Your task to perform on an android device: change notification settings in the gmail app Image 0: 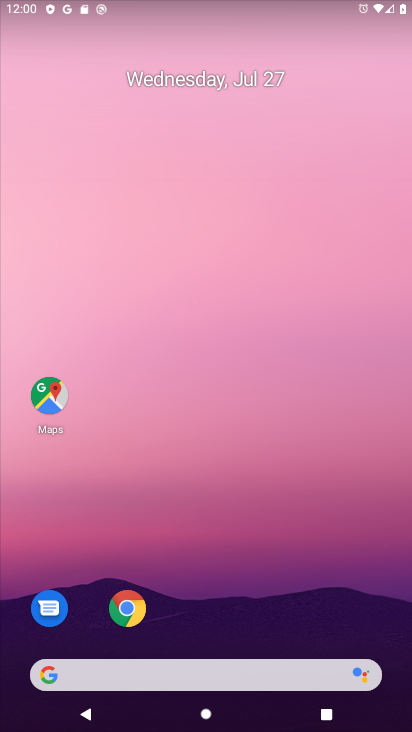
Step 0: drag from (164, 677) to (230, 102)
Your task to perform on an android device: change notification settings in the gmail app Image 1: 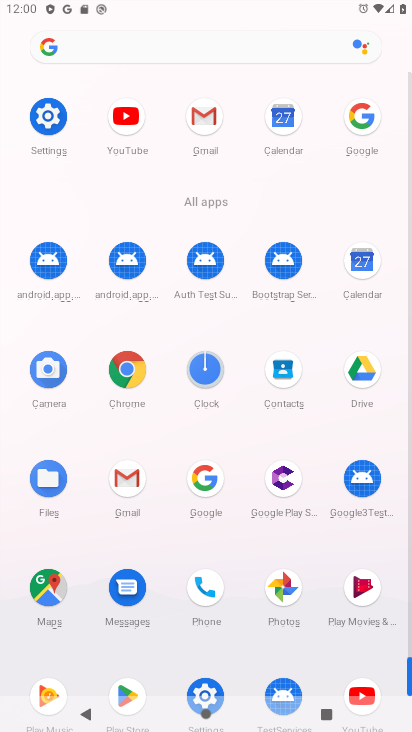
Step 1: click (202, 115)
Your task to perform on an android device: change notification settings in the gmail app Image 2: 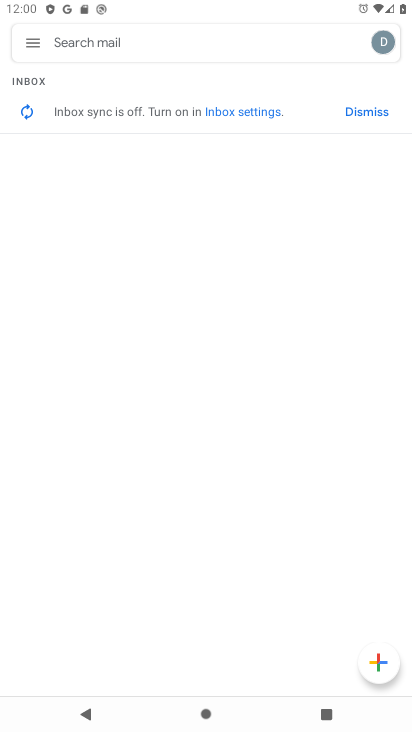
Step 2: click (33, 42)
Your task to perform on an android device: change notification settings in the gmail app Image 3: 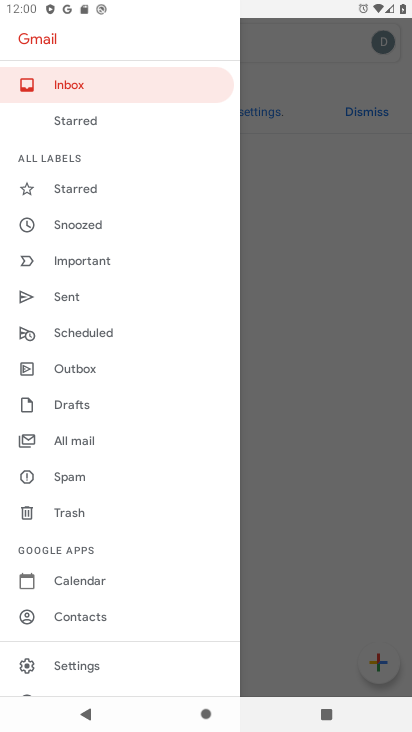
Step 3: drag from (72, 453) to (87, 379)
Your task to perform on an android device: change notification settings in the gmail app Image 4: 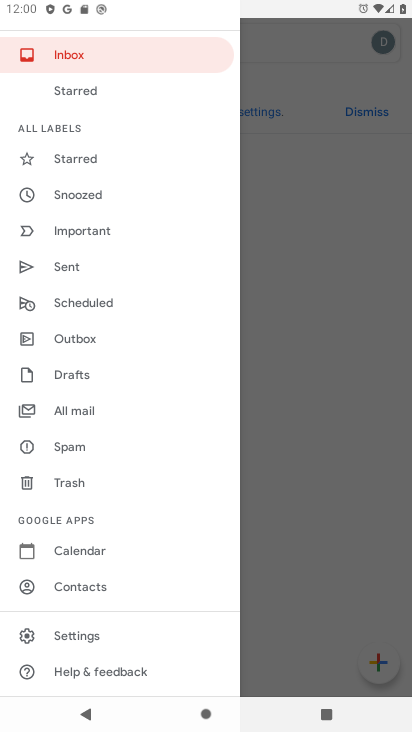
Step 4: click (87, 635)
Your task to perform on an android device: change notification settings in the gmail app Image 5: 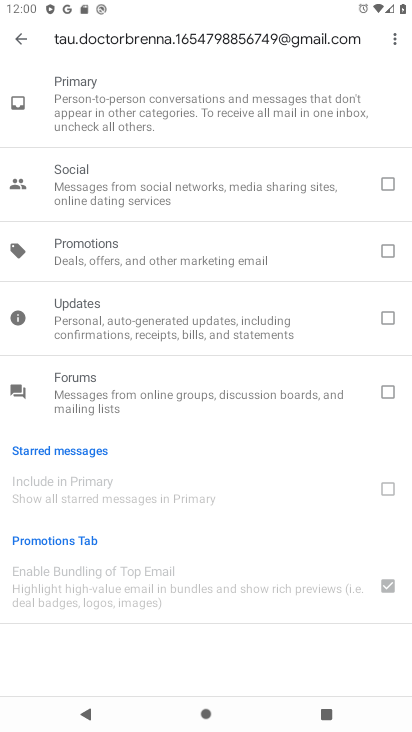
Step 5: press back button
Your task to perform on an android device: change notification settings in the gmail app Image 6: 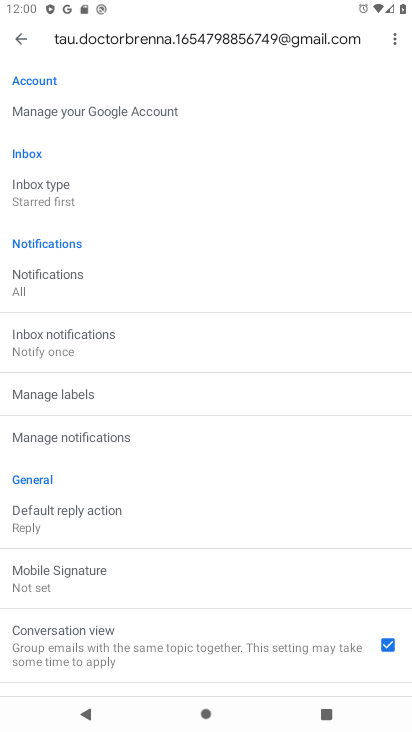
Step 6: click (71, 435)
Your task to perform on an android device: change notification settings in the gmail app Image 7: 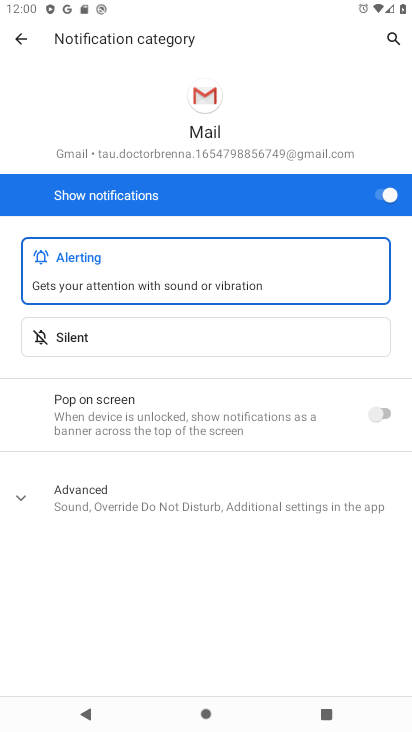
Step 7: click (383, 194)
Your task to perform on an android device: change notification settings in the gmail app Image 8: 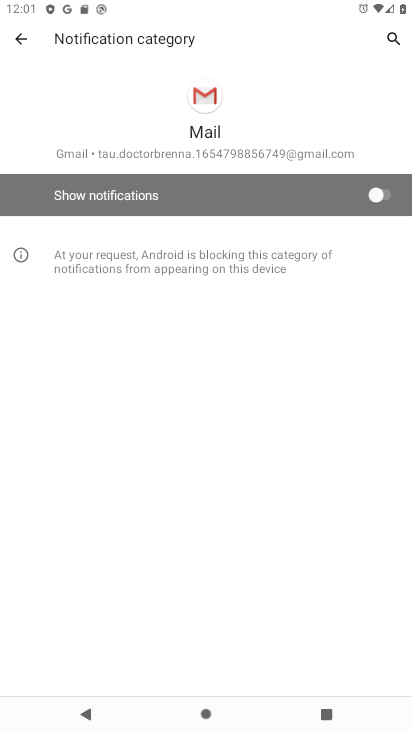
Step 8: task complete